Your task to perform on an android device: What is the news today? Image 0: 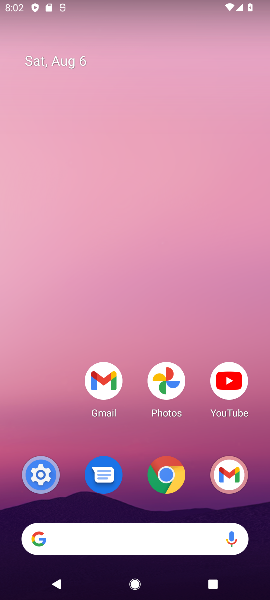
Step 0: drag from (135, 424) to (128, 135)
Your task to perform on an android device: What is the news today? Image 1: 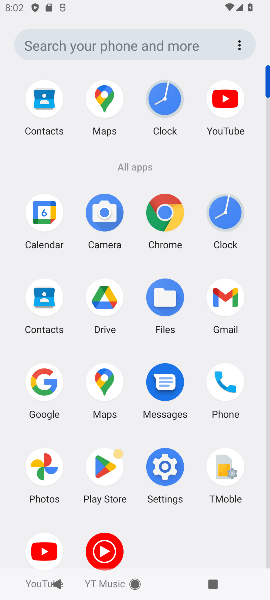
Step 1: click (35, 382)
Your task to perform on an android device: What is the news today? Image 2: 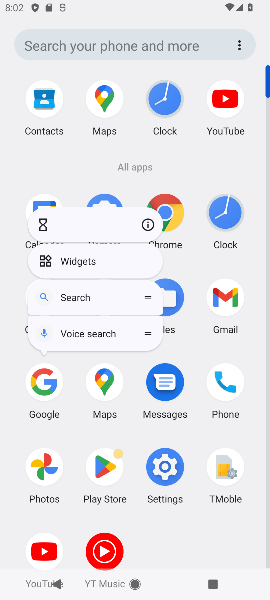
Step 2: click (35, 382)
Your task to perform on an android device: What is the news today? Image 3: 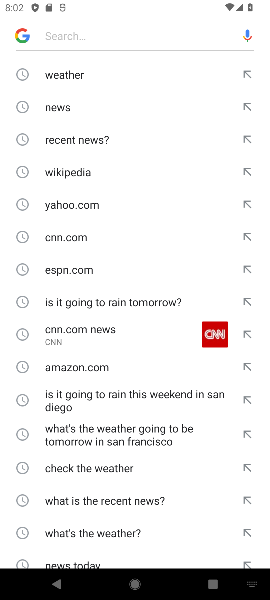
Step 3: click (56, 113)
Your task to perform on an android device: What is the news today? Image 4: 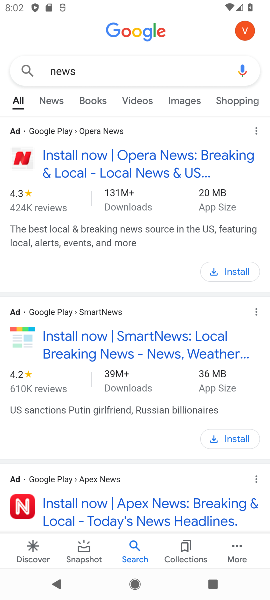
Step 4: click (53, 100)
Your task to perform on an android device: What is the news today? Image 5: 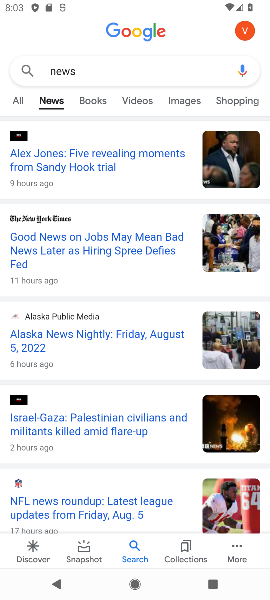
Step 5: task complete